Your task to perform on an android device: turn pop-ups on in chrome Image 0: 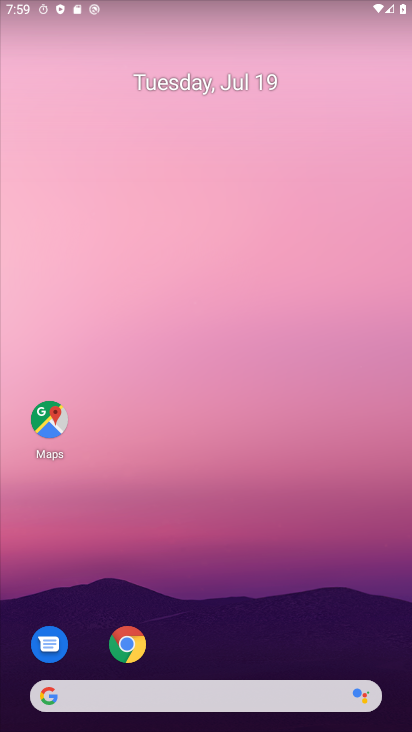
Step 0: click (135, 639)
Your task to perform on an android device: turn pop-ups on in chrome Image 1: 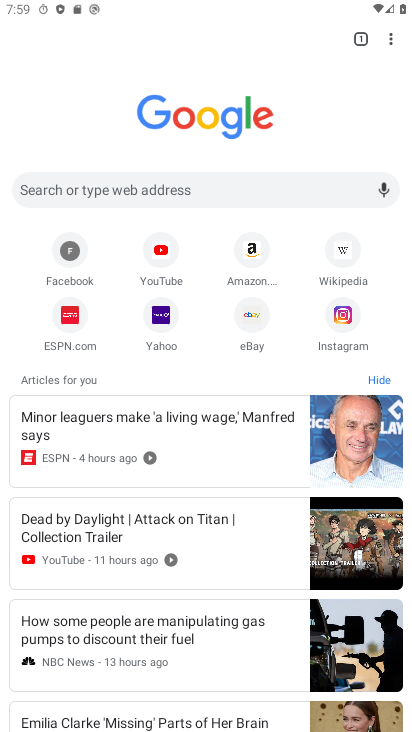
Step 1: click (387, 34)
Your task to perform on an android device: turn pop-ups on in chrome Image 2: 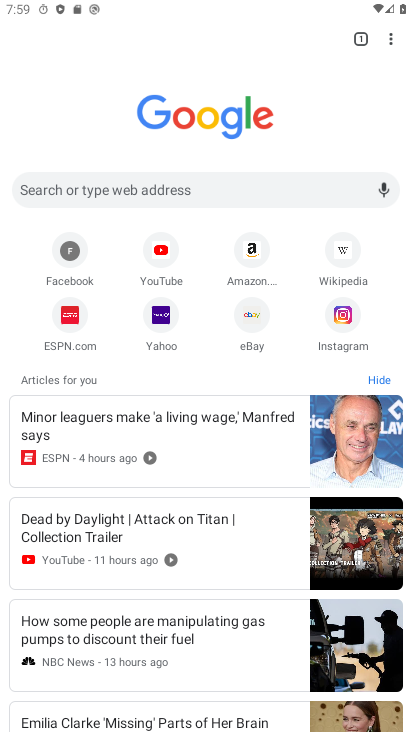
Step 2: click (391, 35)
Your task to perform on an android device: turn pop-ups on in chrome Image 3: 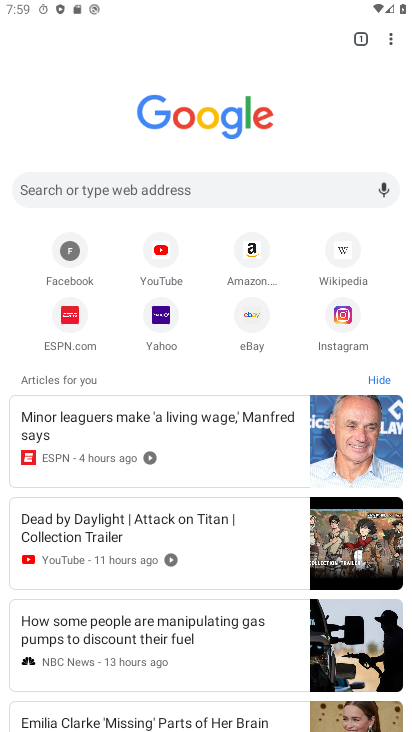
Step 3: click (391, 40)
Your task to perform on an android device: turn pop-ups on in chrome Image 4: 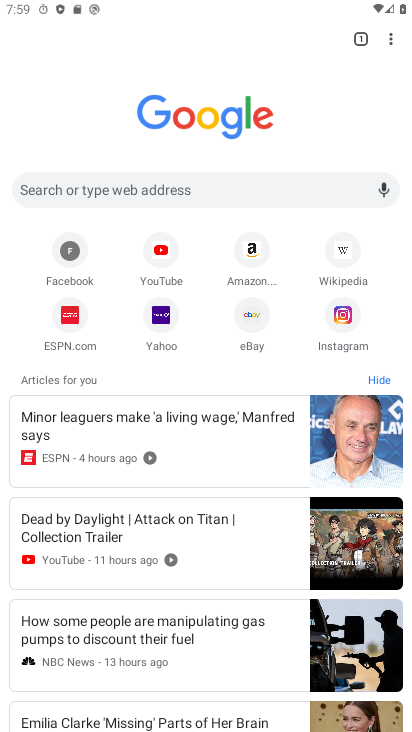
Step 4: click (391, 36)
Your task to perform on an android device: turn pop-ups on in chrome Image 5: 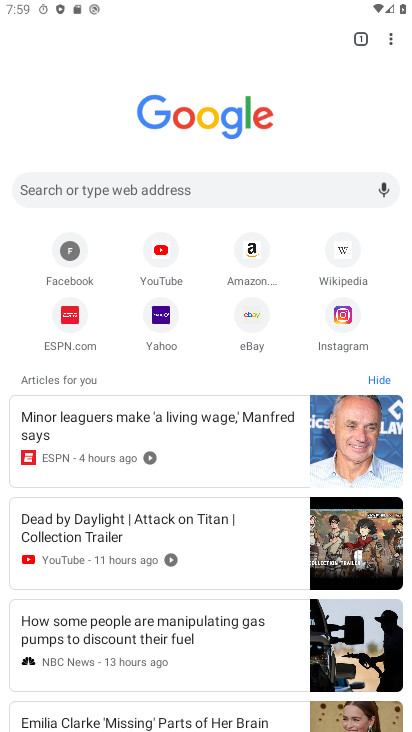
Step 5: task complete